Your task to perform on an android device: What is the capital of Spain? Image 0: 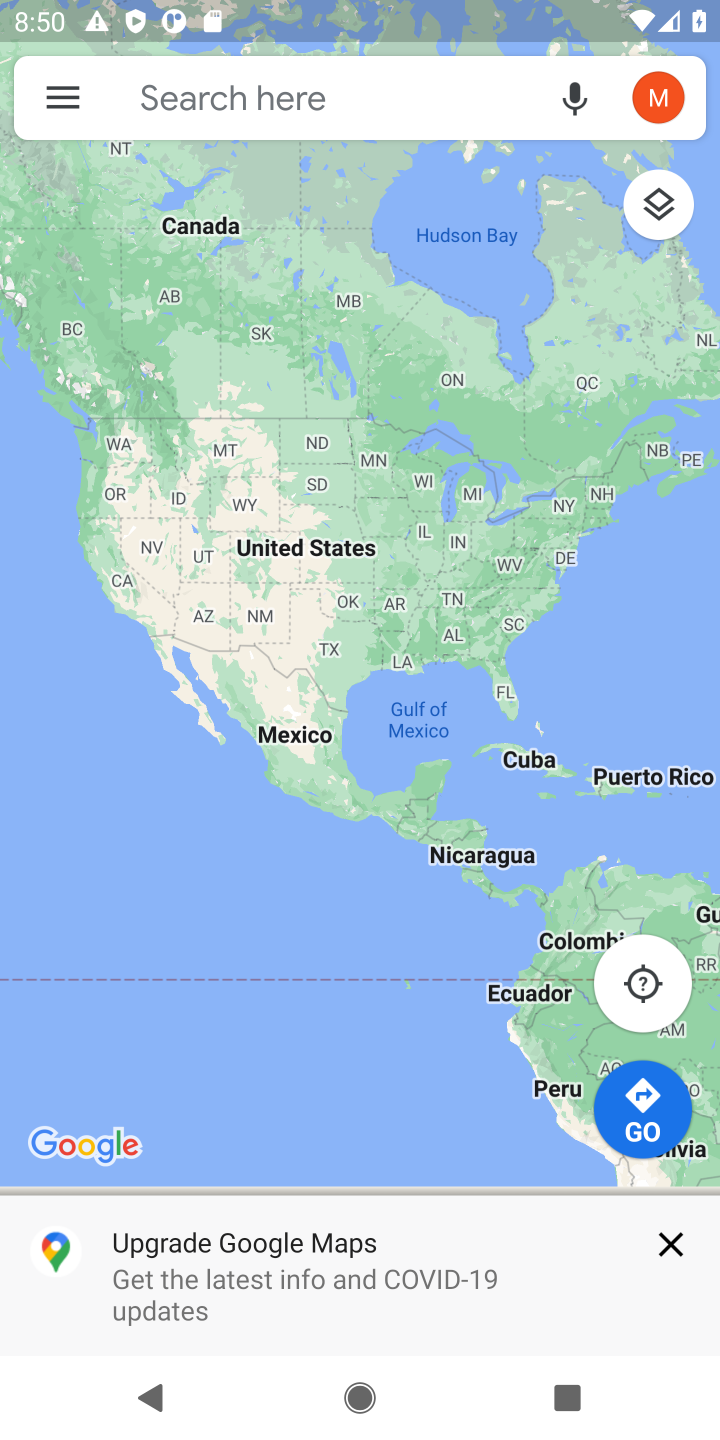
Step 0: press home button
Your task to perform on an android device: What is the capital of Spain? Image 1: 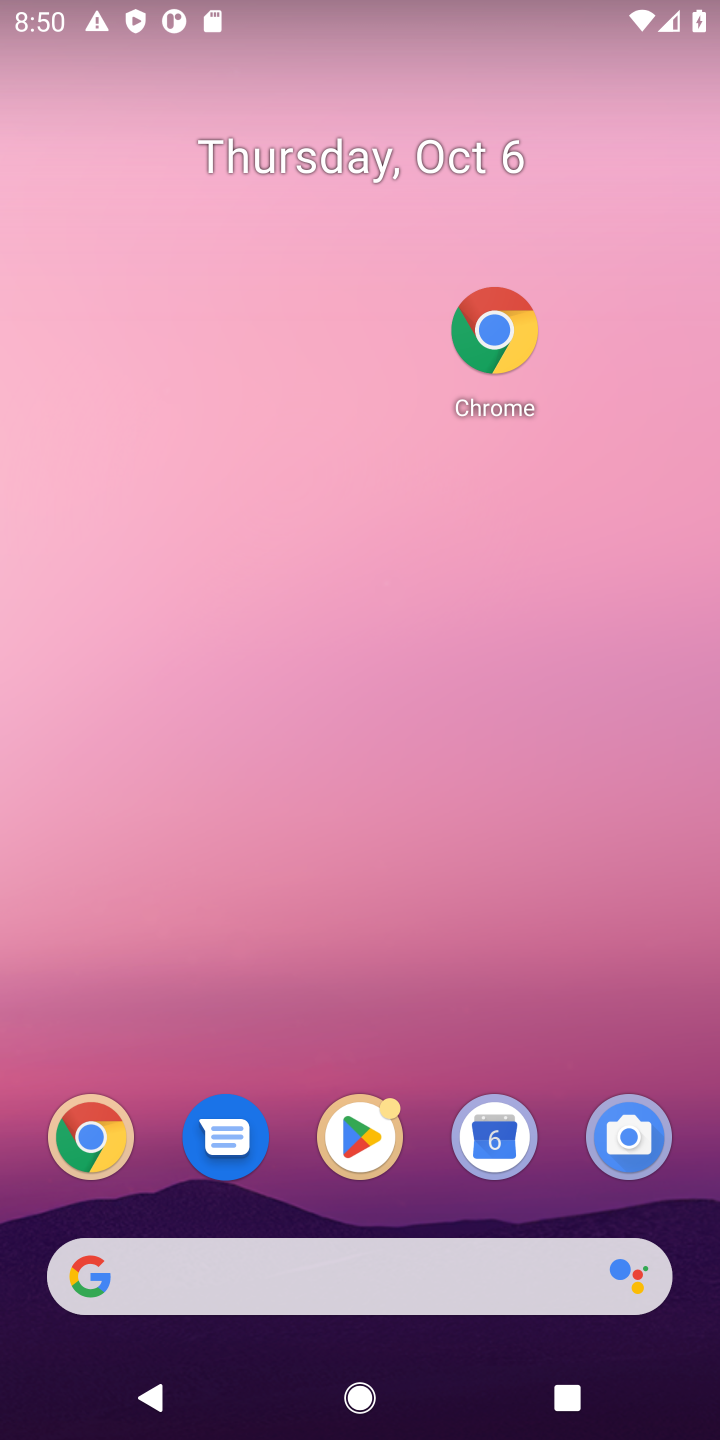
Step 1: click (95, 1135)
Your task to perform on an android device: What is the capital of Spain? Image 2: 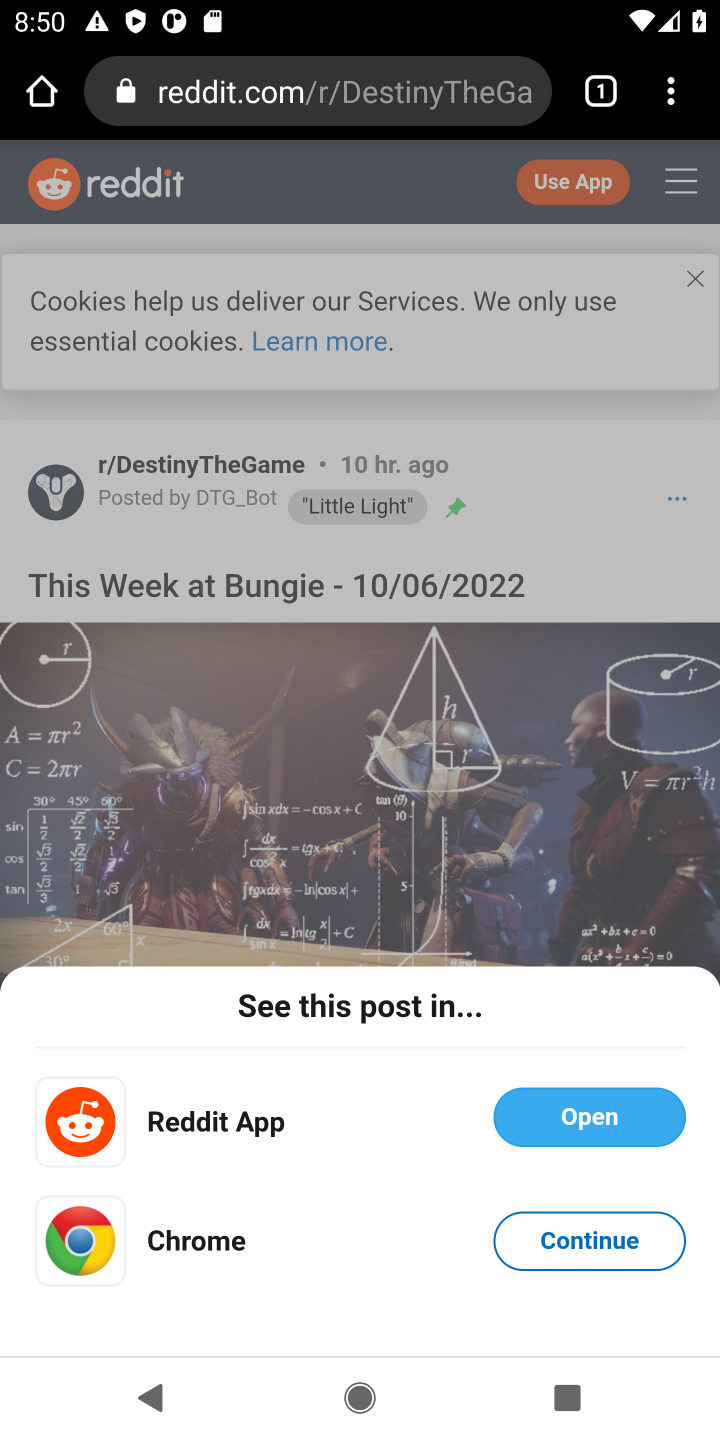
Step 2: click (487, 106)
Your task to perform on an android device: What is the capital of Spain? Image 3: 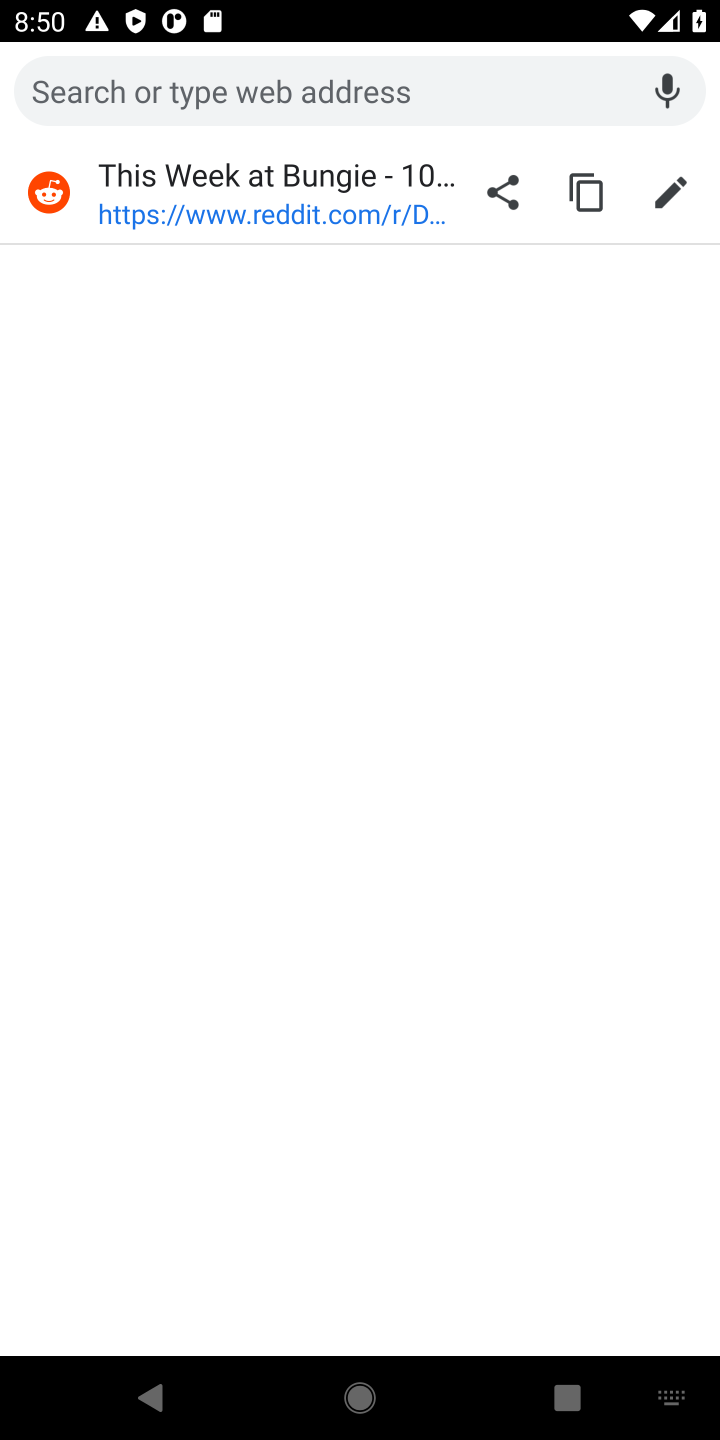
Step 3: type "the capital of Spain"
Your task to perform on an android device: What is the capital of Spain? Image 4: 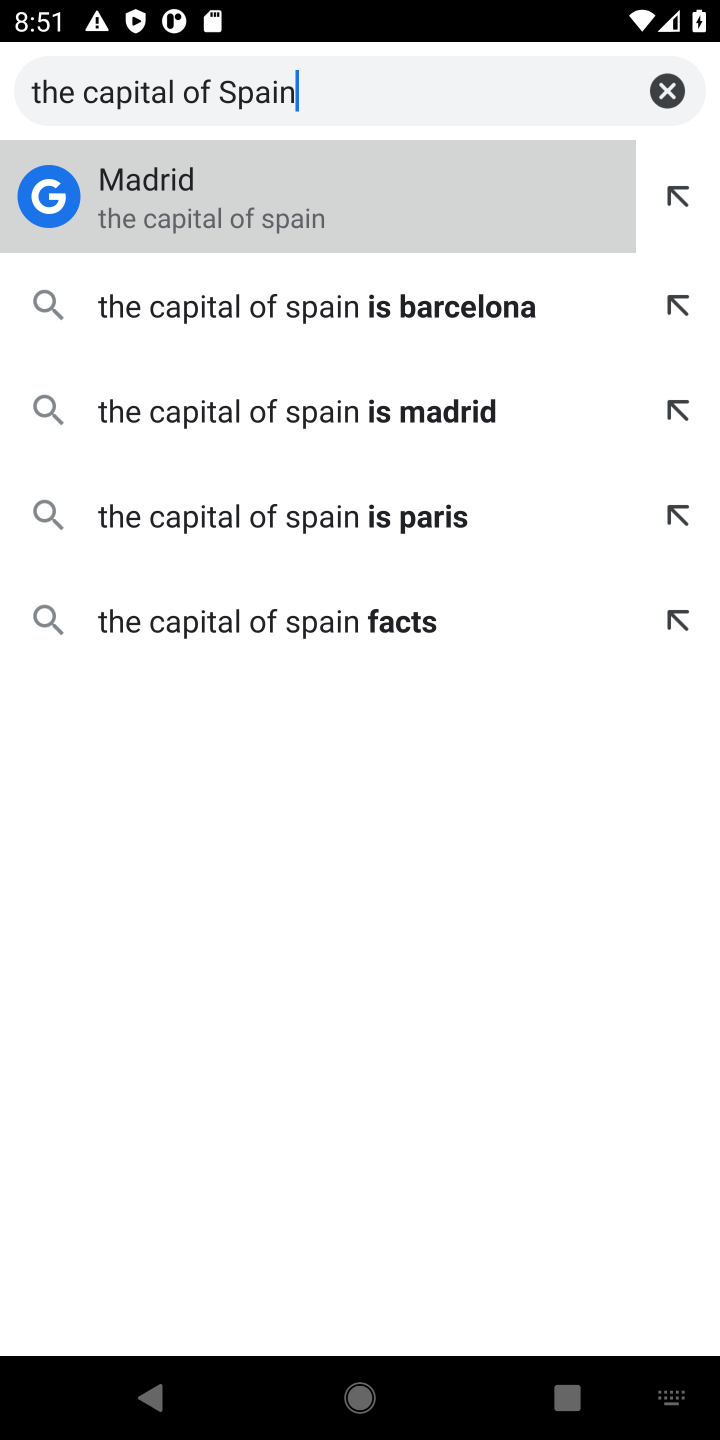
Step 4: click (341, 313)
Your task to perform on an android device: What is the capital of Spain? Image 5: 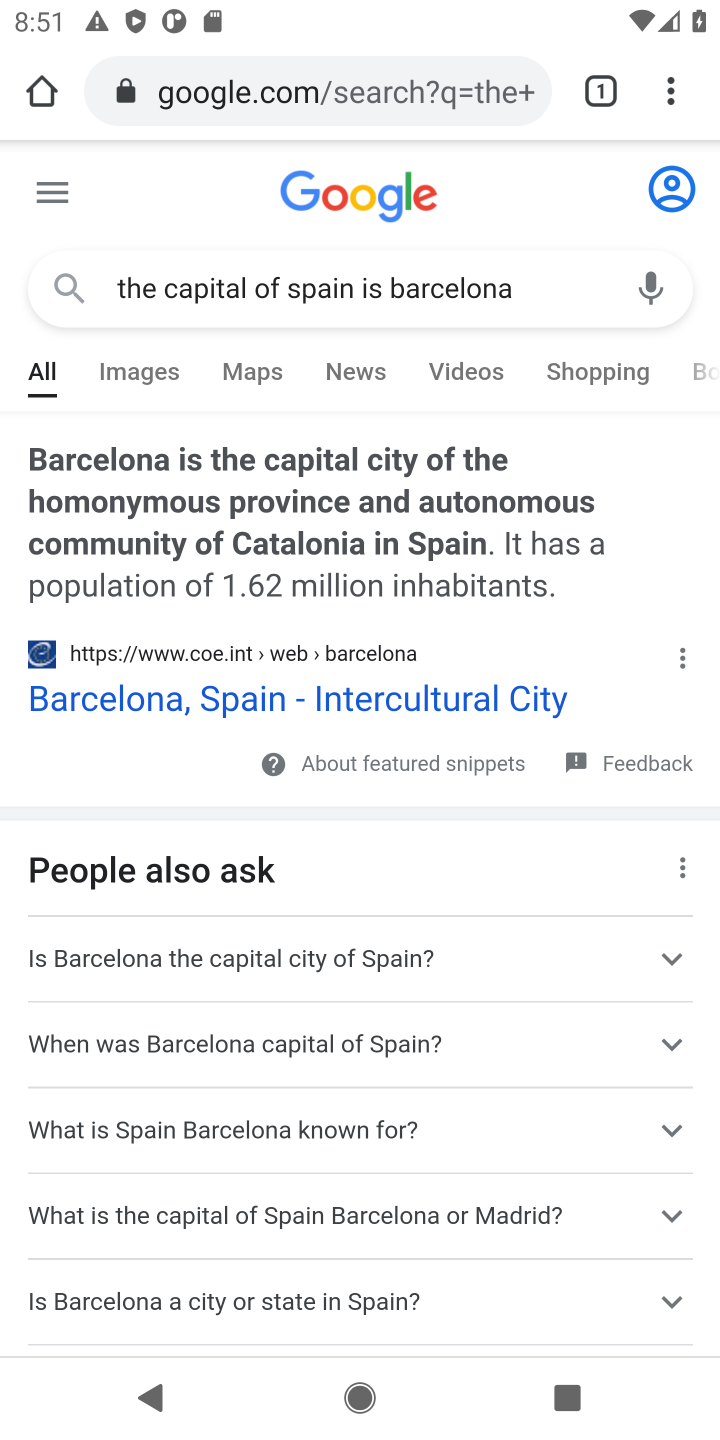
Step 5: task complete